Your task to perform on an android device: What's the weather going to be tomorrow? Image 0: 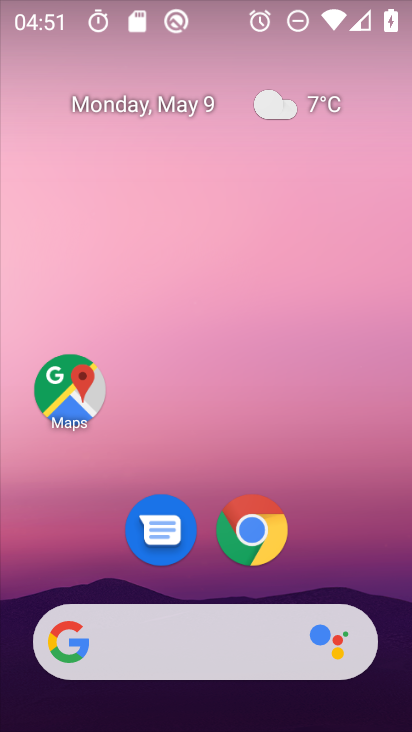
Step 0: drag from (203, 587) to (262, 177)
Your task to perform on an android device: What's the weather going to be tomorrow? Image 1: 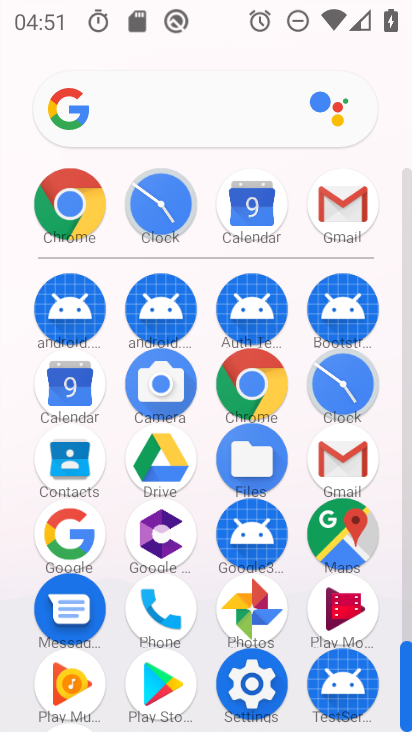
Step 1: press back button
Your task to perform on an android device: What's the weather going to be tomorrow? Image 2: 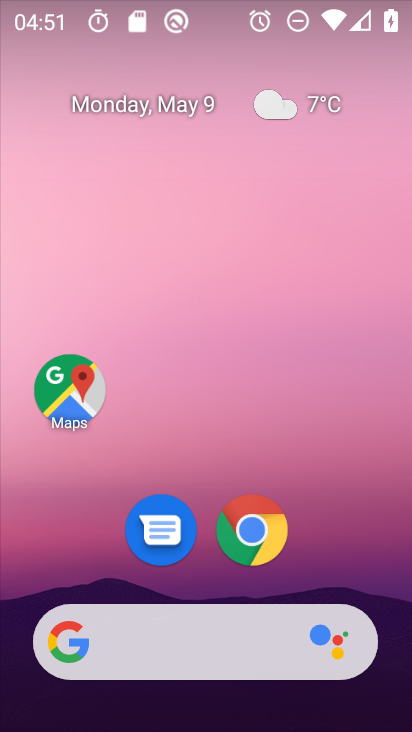
Step 2: click (279, 100)
Your task to perform on an android device: What's the weather going to be tomorrow? Image 3: 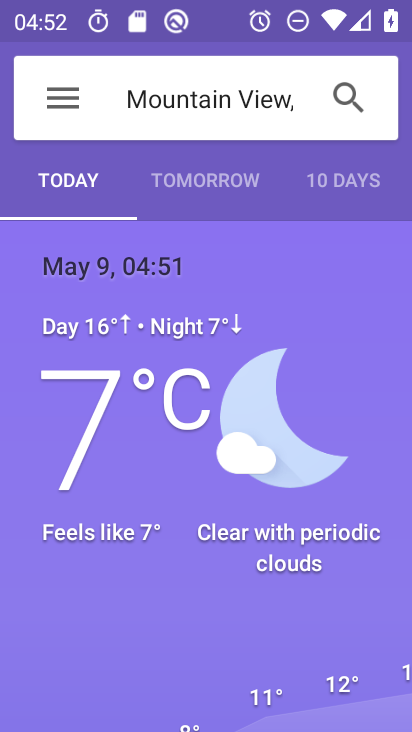
Step 3: click (208, 186)
Your task to perform on an android device: What's the weather going to be tomorrow? Image 4: 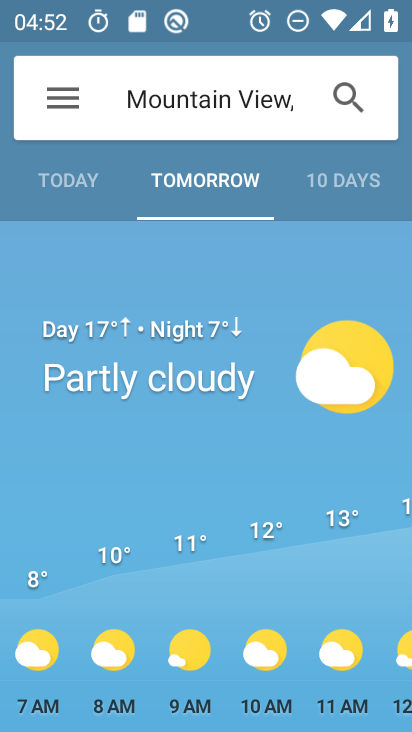
Step 4: task complete